Your task to perform on an android device: Go to Amazon Image 0: 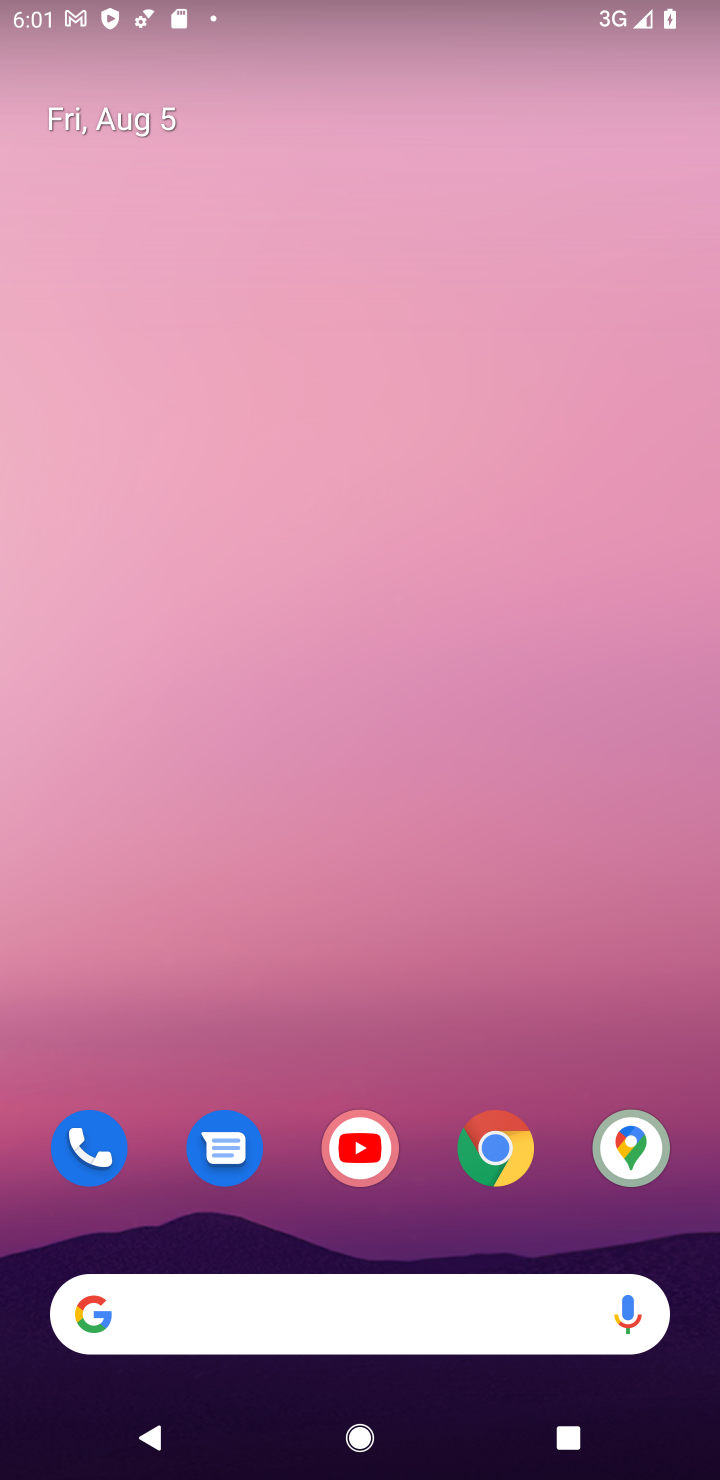
Step 0: click (498, 1149)
Your task to perform on an android device: Go to Amazon Image 1: 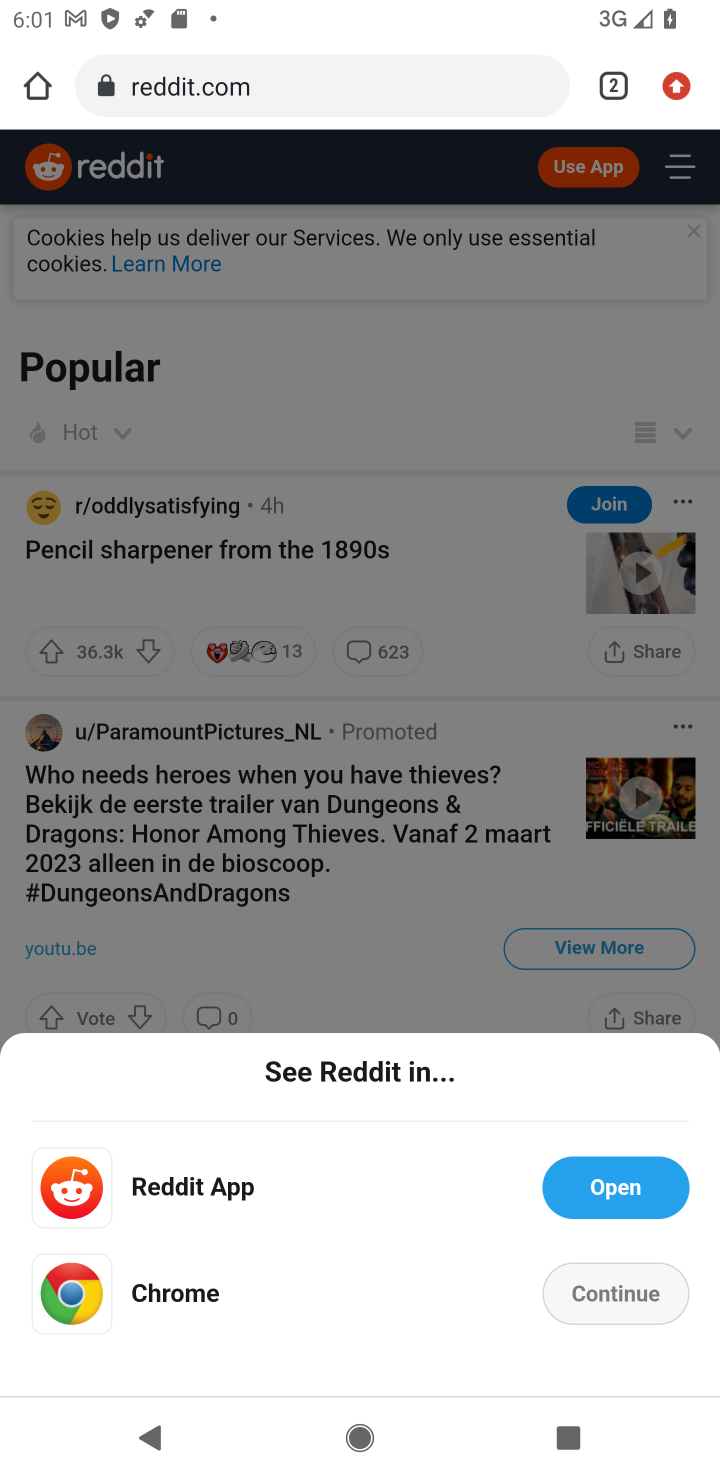
Step 1: click (621, 1286)
Your task to perform on an android device: Go to Amazon Image 2: 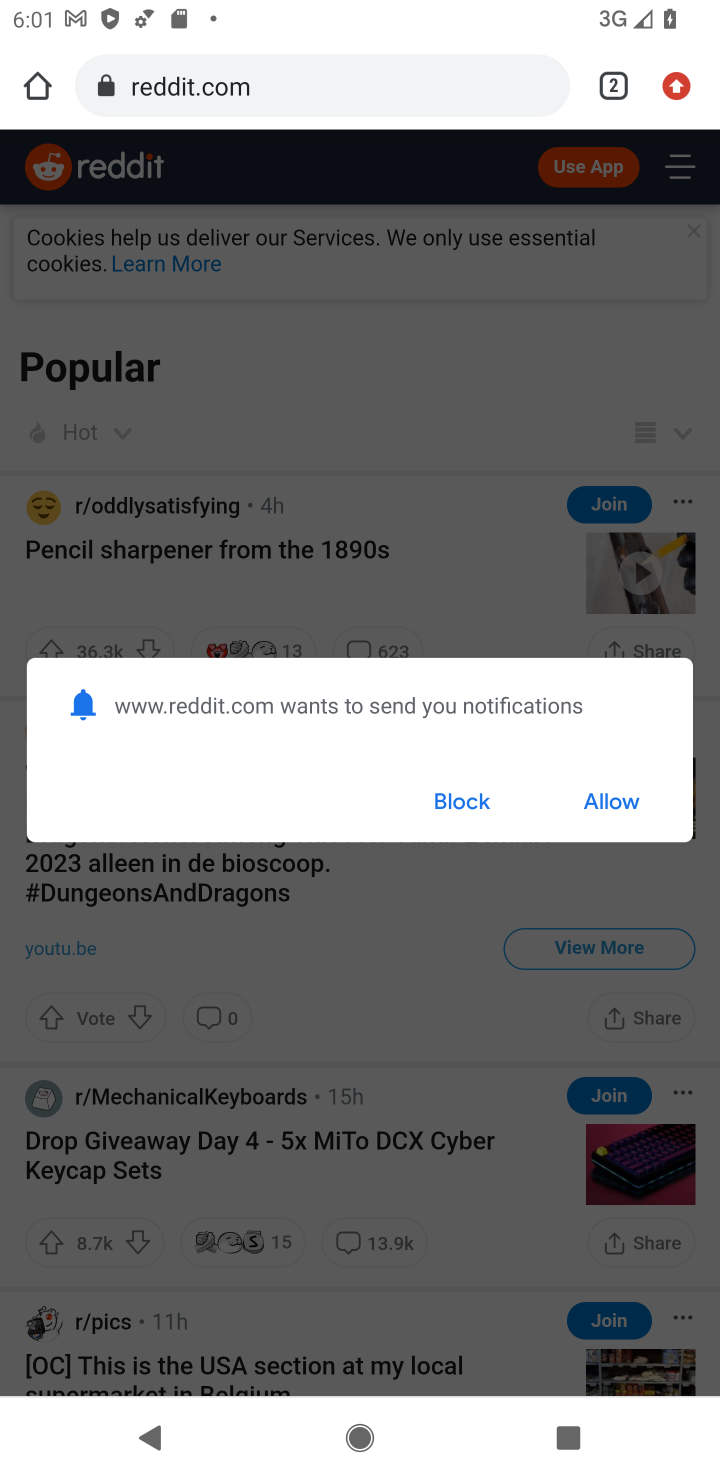
Step 2: click (610, 811)
Your task to perform on an android device: Go to Amazon Image 3: 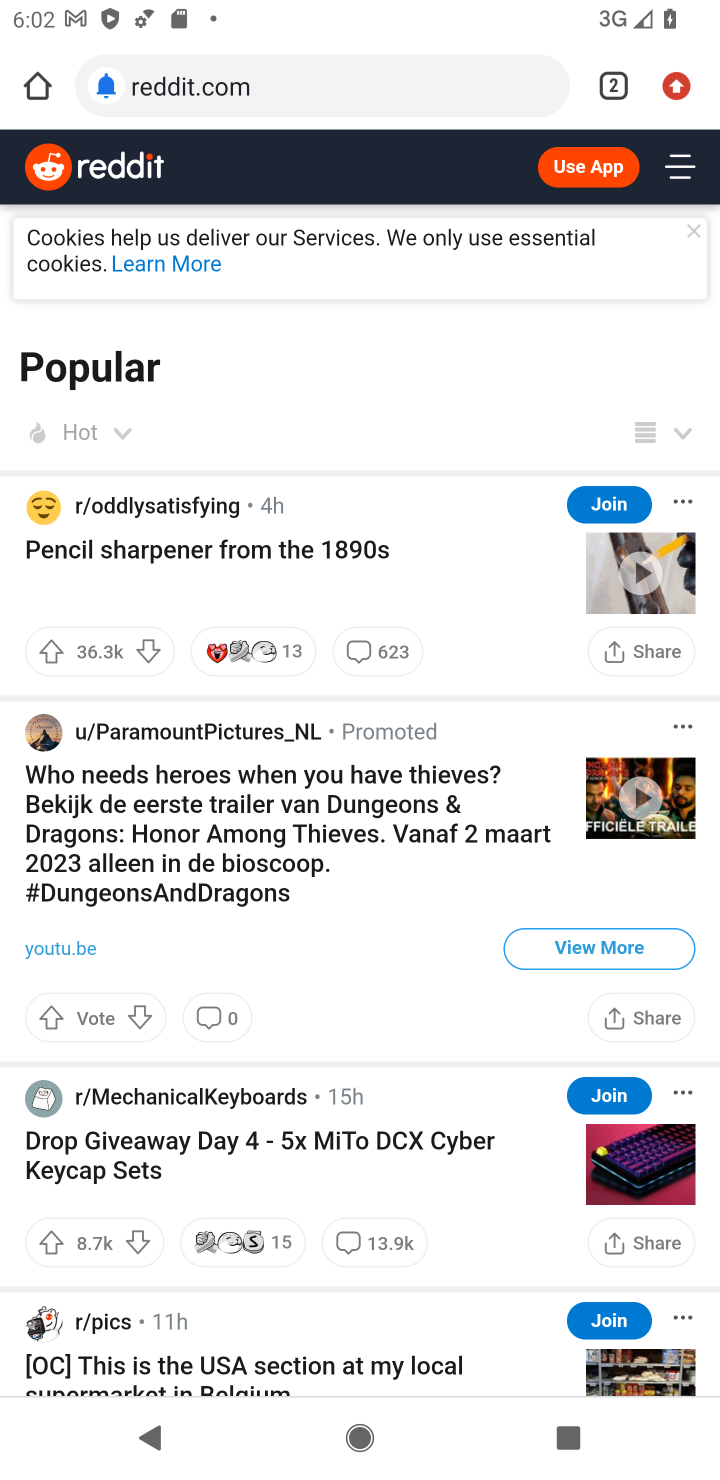
Step 3: click (683, 77)
Your task to perform on an android device: Go to Amazon Image 4: 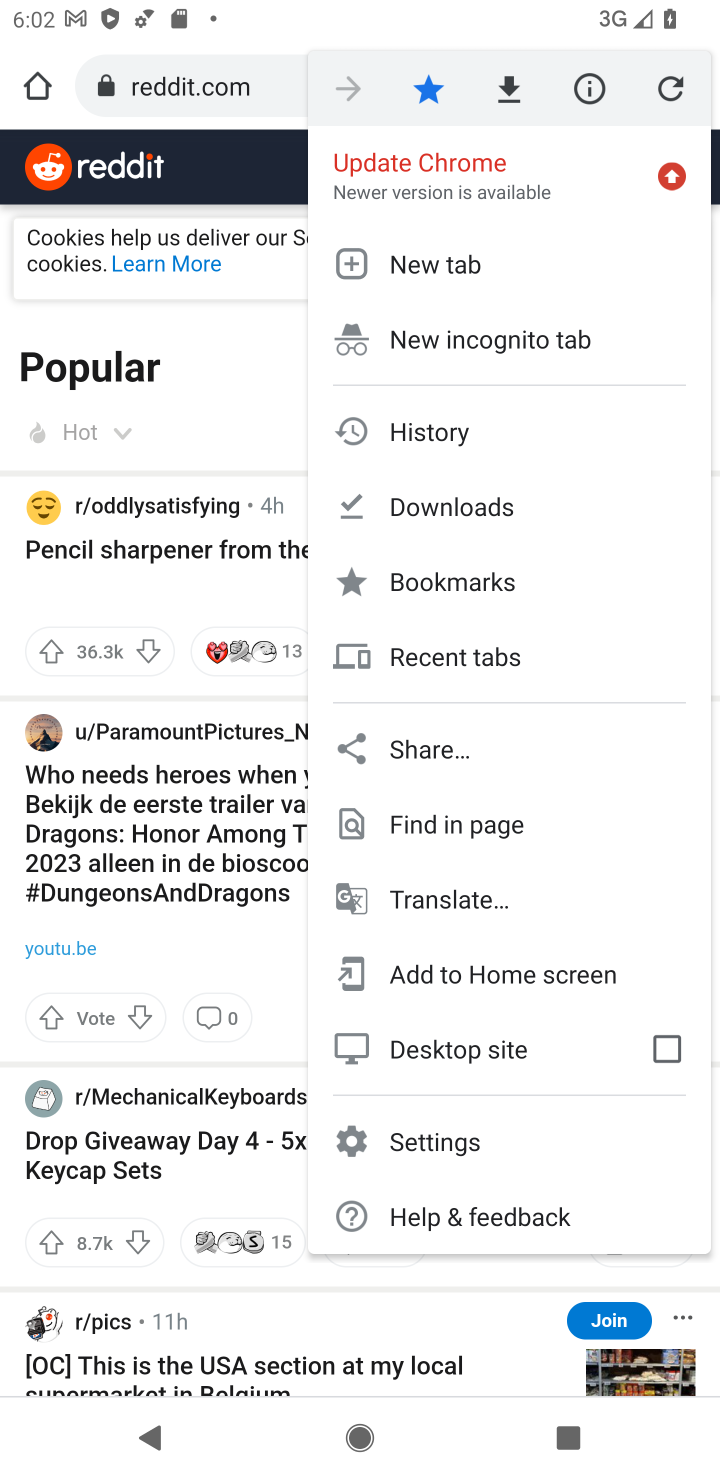
Step 4: click (427, 262)
Your task to perform on an android device: Go to Amazon Image 5: 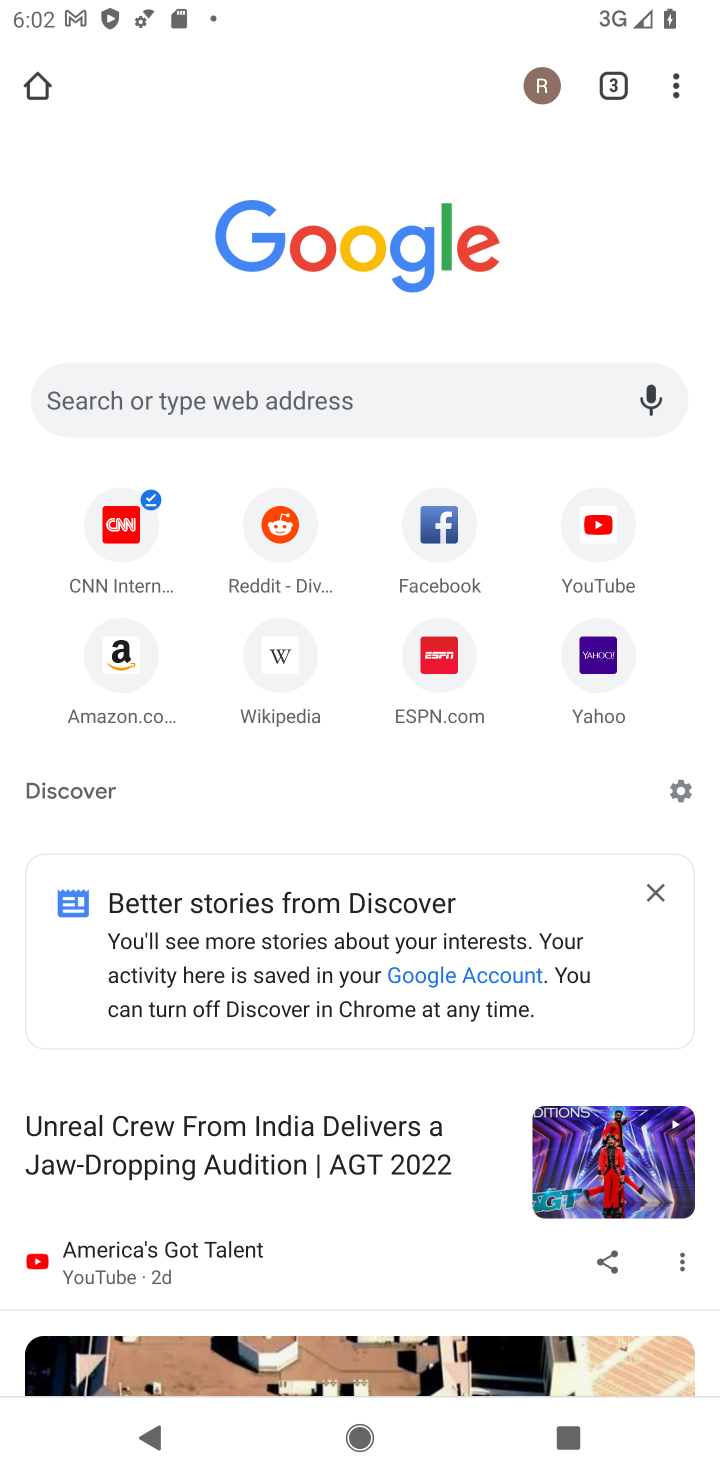
Step 5: click (122, 658)
Your task to perform on an android device: Go to Amazon Image 6: 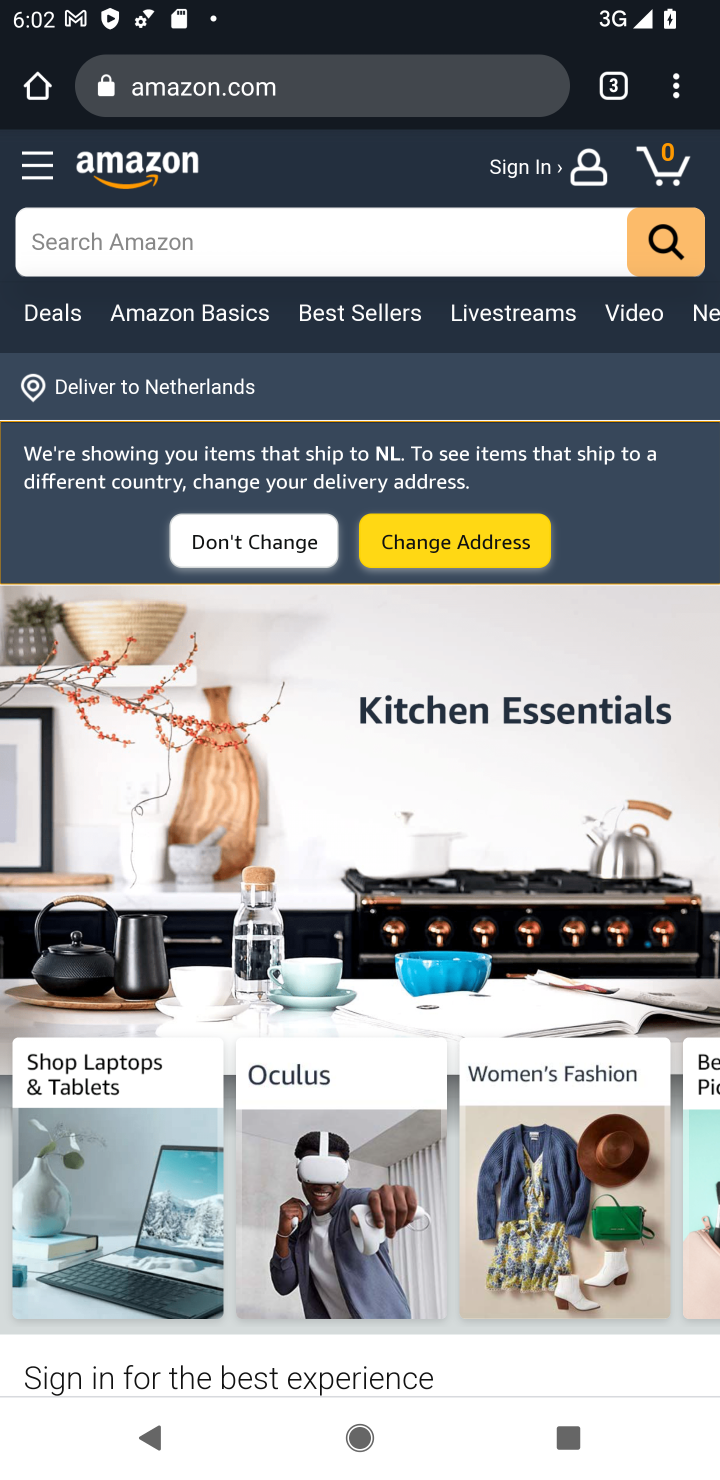
Step 6: task complete